Your task to perform on an android device: change timer sound Image 0: 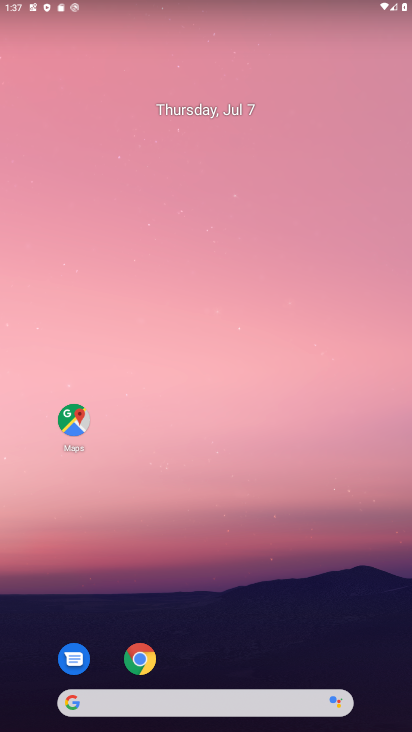
Step 0: drag from (209, 661) to (270, 41)
Your task to perform on an android device: change timer sound Image 1: 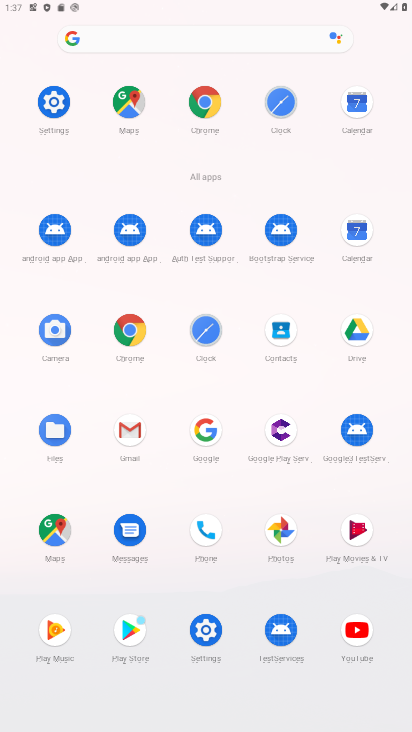
Step 1: click (207, 325)
Your task to perform on an android device: change timer sound Image 2: 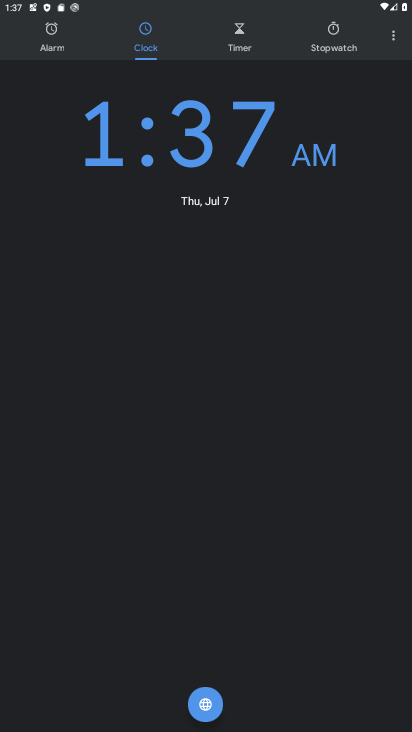
Step 2: click (389, 35)
Your task to perform on an android device: change timer sound Image 3: 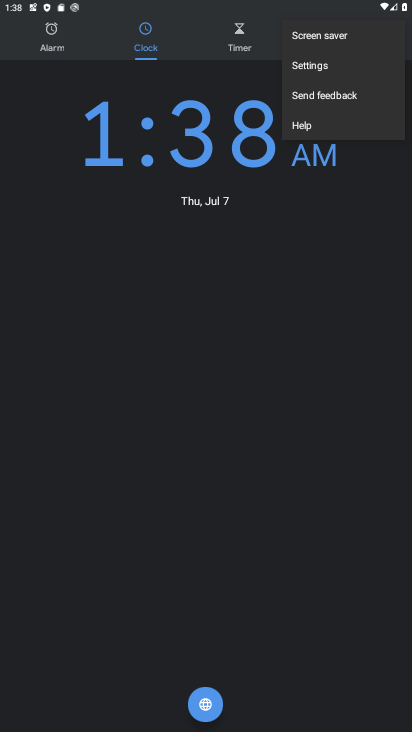
Step 3: click (319, 69)
Your task to perform on an android device: change timer sound Image 4: 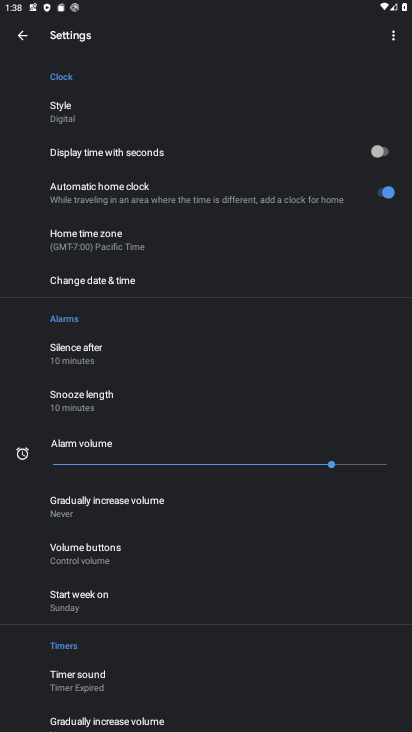
Step 4: click (119, 684)
Your task to perform on an android device: change timer sound Image 5: 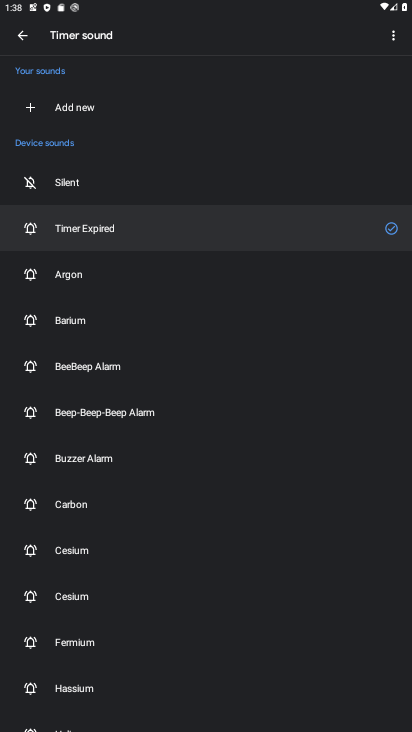
Step 5: click (96, 640)
Your task to perform on an android device: change timer sound Image 6: 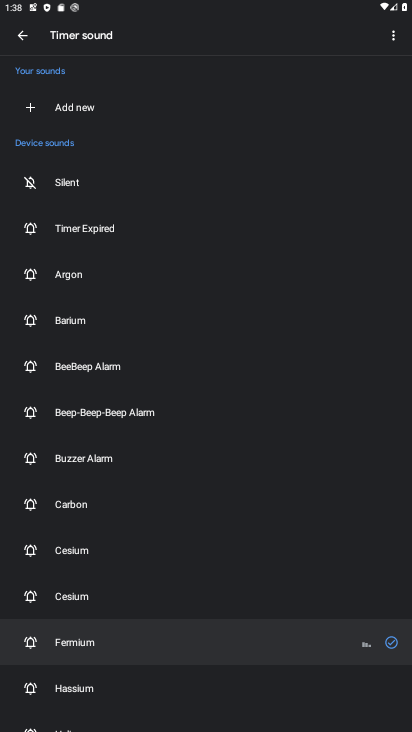
Step 6: task complete